Your task to perform on an android device: turn off sleep mode Image 0: 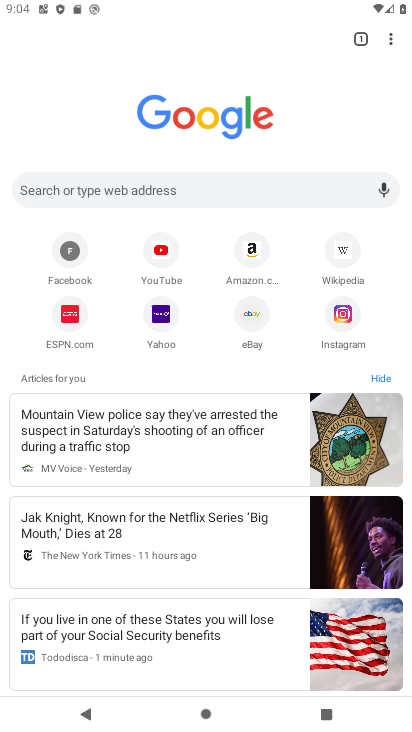
Step 0: click (200, 663)
Your task to perform on an android device: turn off sleep mode Image 1: 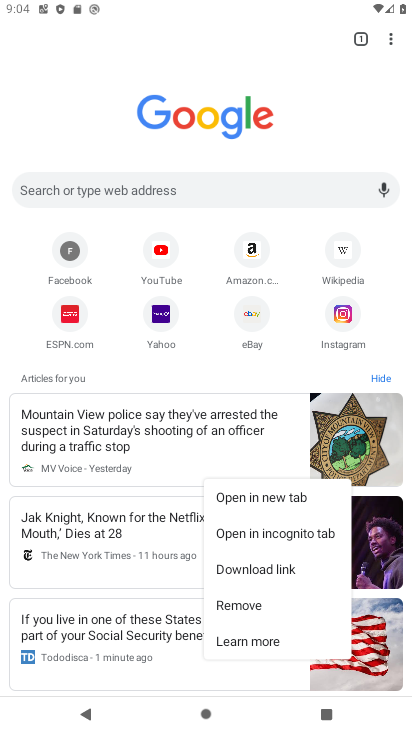
Step 1: press back button
Your task to perform on an android device: turn off sleep mode Image 2: 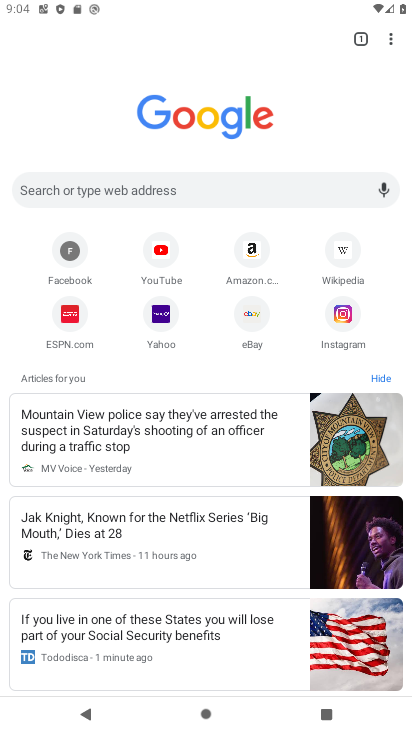
Step 2: press back button
Your task to perform on an android device: turn off sleep mode Image 3: 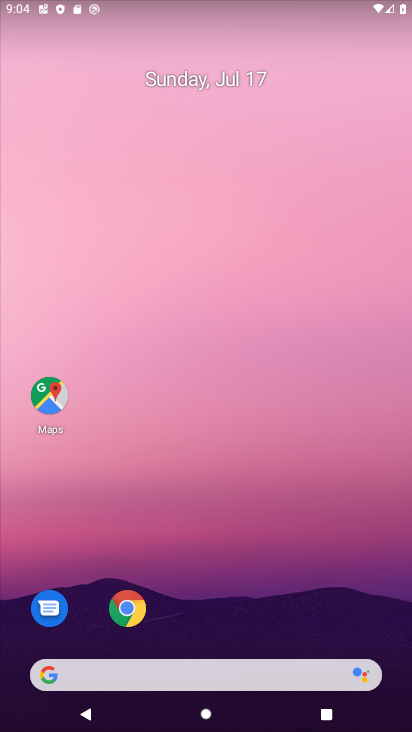
Step 3: drag from (158, 681) to (221, 232)
Your task to perform on an android device: turn off sleep mode Image 4: 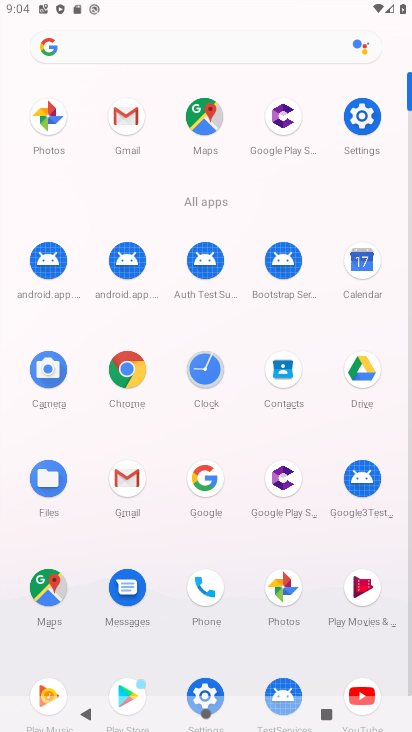
Step 4: click (362, 117)
Your task to perform on an android device: turn off sleep mode Image 5: 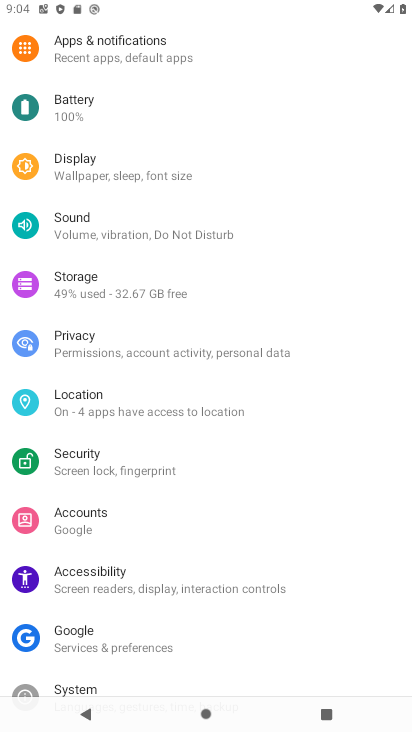
Step 5: click (180, 175)
Your task to perform on an android device: turn off sleep mode Image 6: 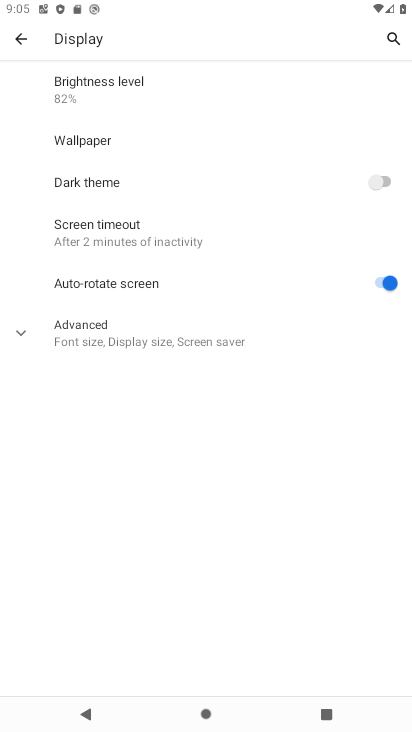
Step 6: click (184, 249)
Your task to perform on an android device: turn off sleep mode Image 7: 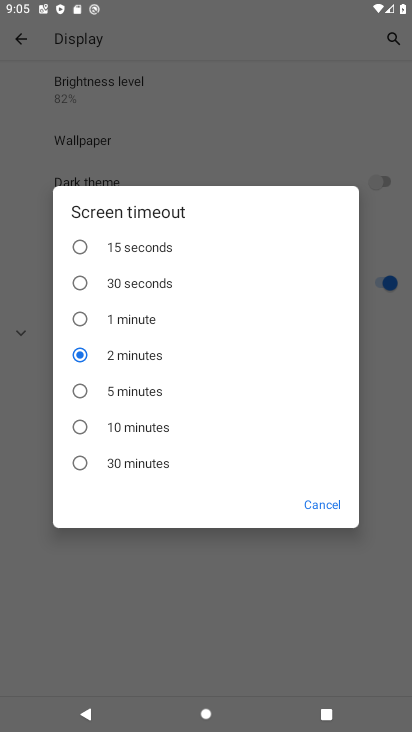
Step 7: click (333, 504)
Your task to perform on an android device: turn off sleep mode Image 8: 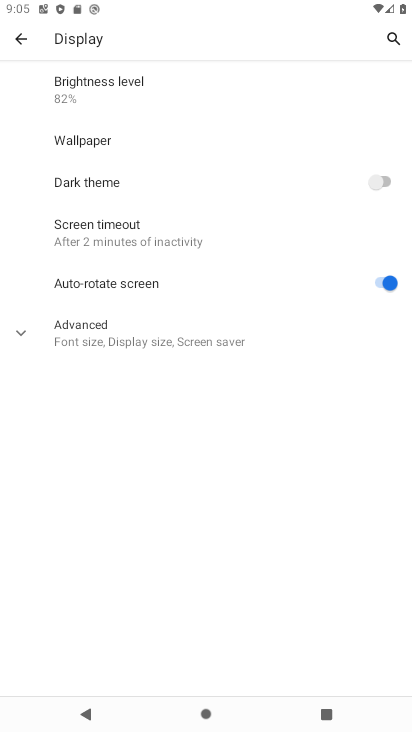
Step 8: click (192, 338)
Your task to perform on an android device: turn off sleep mode Image 9: 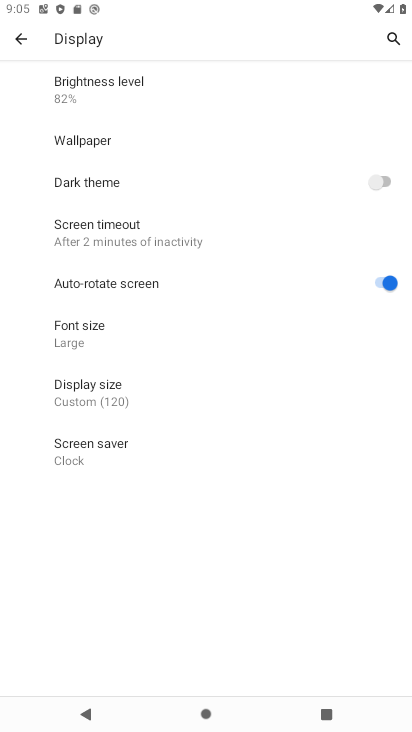
Step 9: click (84, 450)
Your task to perform on an android device: turn off sleep mode Image 10: 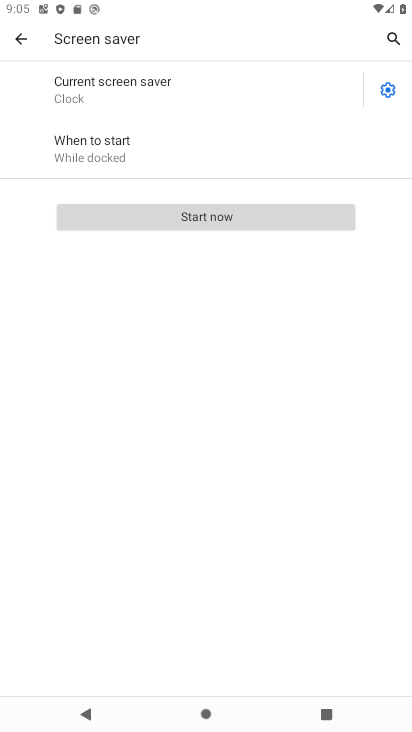
Step 10: click (391, 88)
Your task to perform on an android device: turn off sleep mode Image 11: 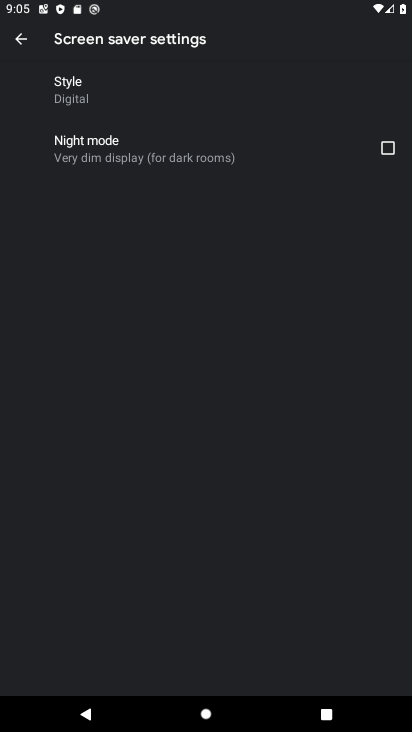
Step 11: task complete